Your task to perform on an android device: What's the weather going to be tomorrow? Image 0: 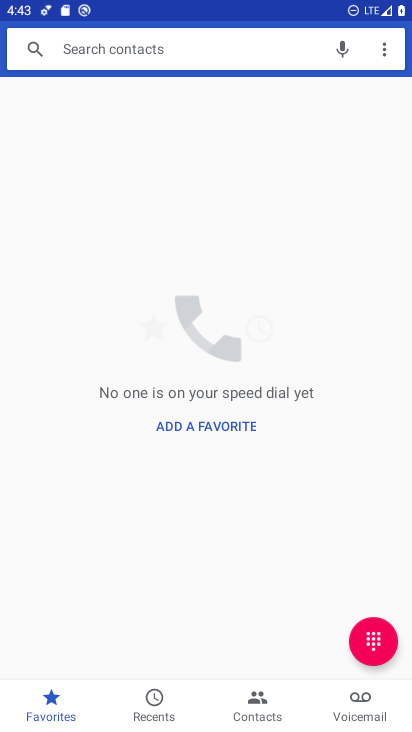
Step 0: press home button
Your task to perform on an android device: What's the weather going to be tomorrow? Image 1: 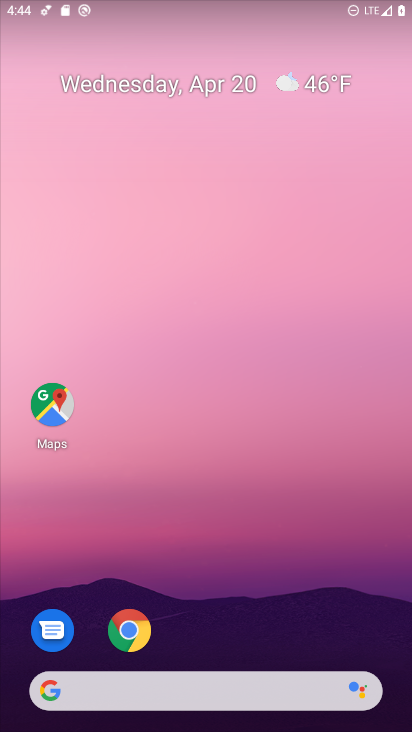
Step 1: drag from (158, 589) to (233, 17)
Your task to perform on an android device: What's the weather going to be tomorrow? Image 2: 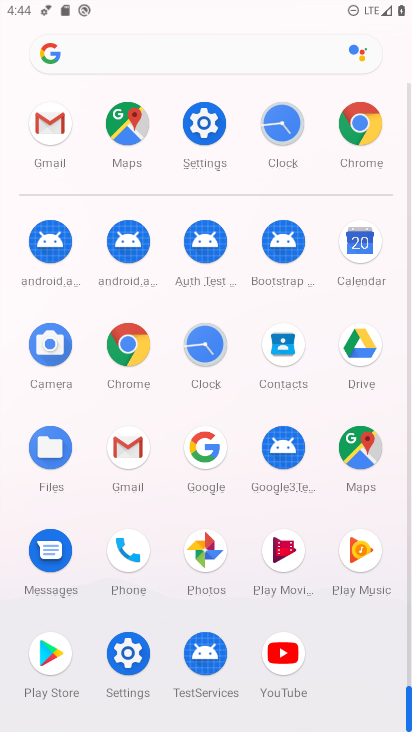
Step 2: click (127, 358)
Your task to perform on an android device: What's the weather going to be tomorrow? Image 3: 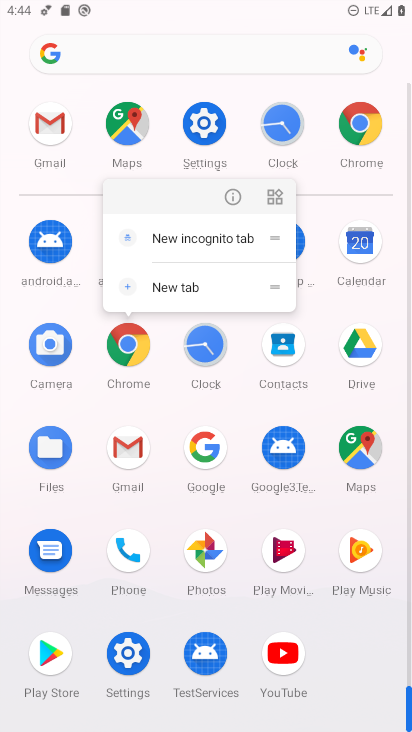
Step 3: click (140, 337)
Your task to perform on an android device: What's the weather going to be tomorrow? Image 4: 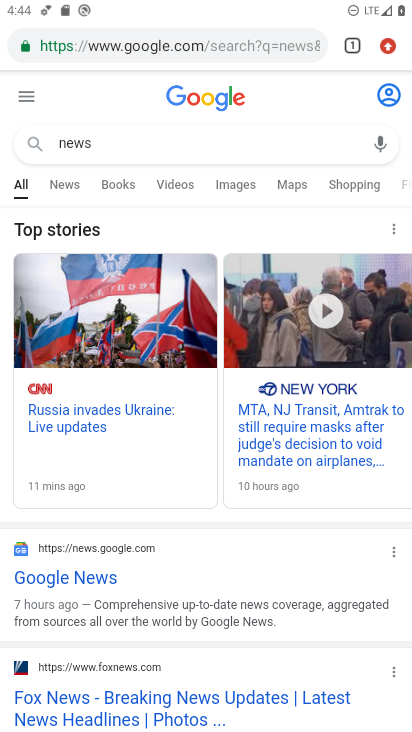
Step 4: click (298, 40)
Your task to perform on an android device: What's the weather going to be tomorrow? Image 5: 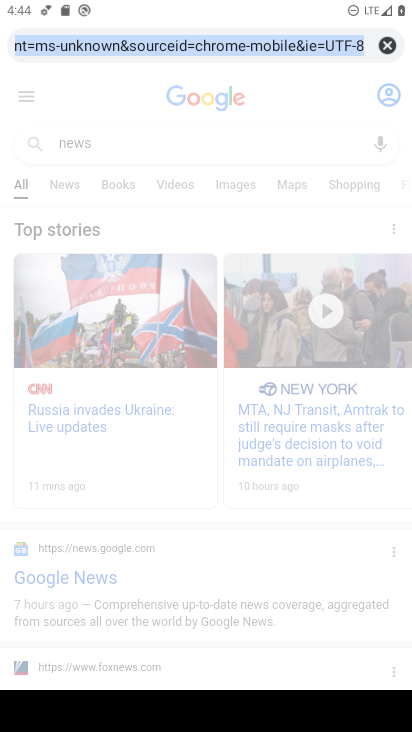
Step 5: click (383, 43)
Your task to perform on an android device: What's the weather going to be tomorrow? Image 6: 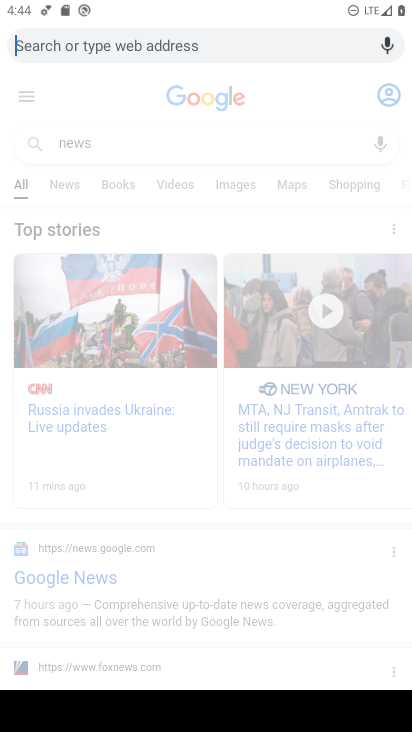
Step 6: type "weather tomorrow"
Your task to perform on an android device: What's the weather going to be tomorrow? Image 7: 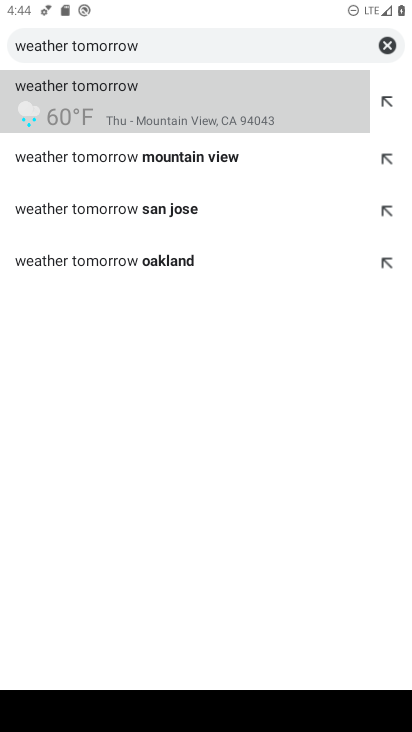
Step 7: click (255, 114)
Your task to perform on an android device: What's the weather going to be tomorrow? Image 8: 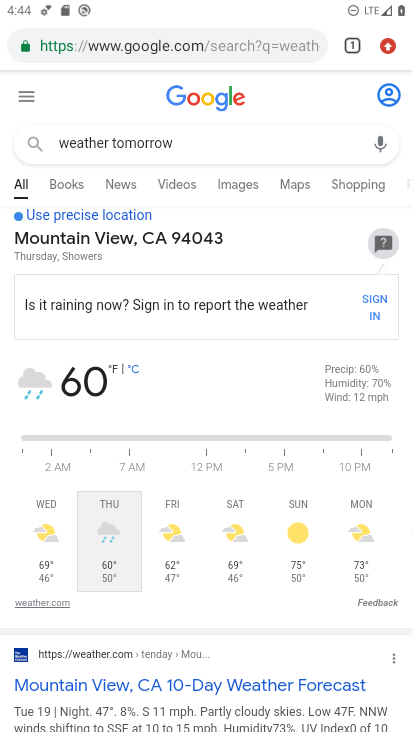
Step 8: task complete